Your task to perform on an android device: Go to Google Image 0: 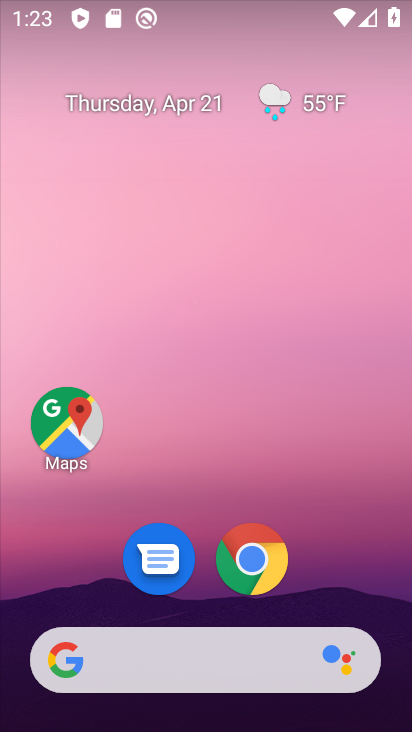
Step 0: drag from (227, 636) to (291, 178)
Your task to perform on an android device: Go to Google Image 1: 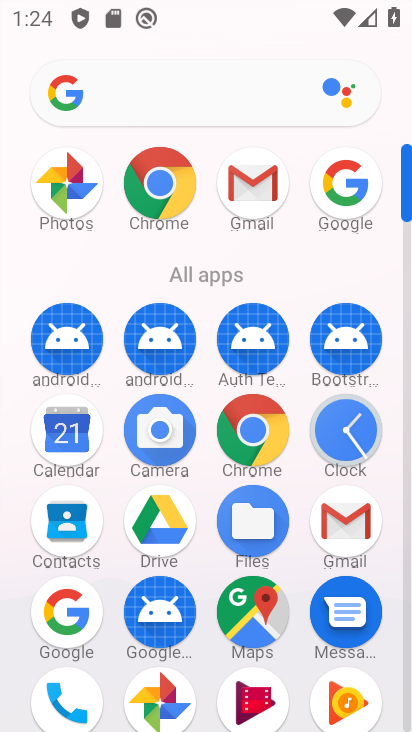
Step 1: click (54, 617)
Your task to perform on an android device: Go to Google Image 2: 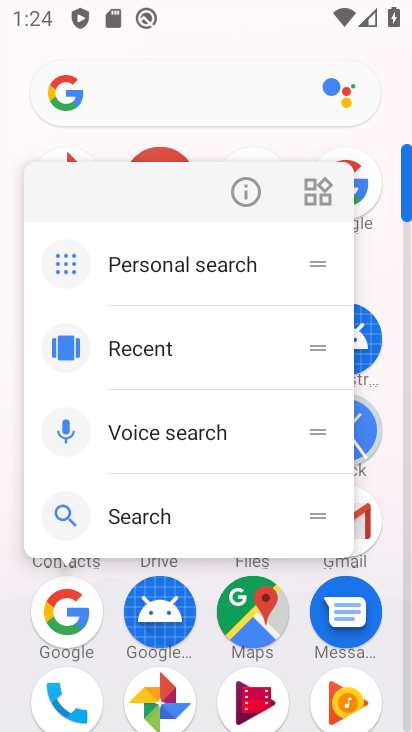
Step 2: click (54, 617)
Your task to perform on an android device: Go to Google Image 3: 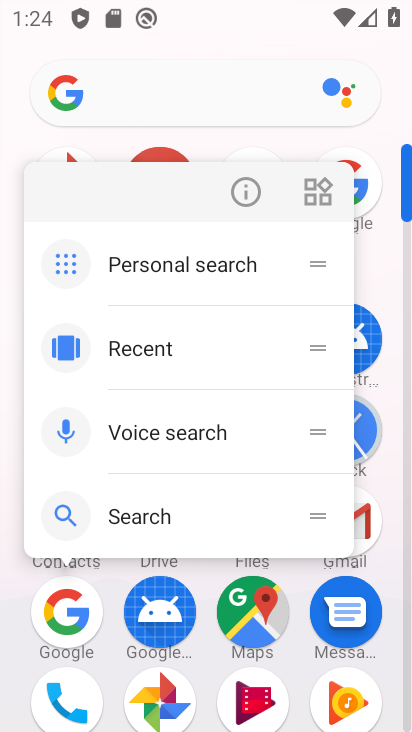
Step 3: click (54, 617)
Your task to perform on an android device: Go to Google Image 4: 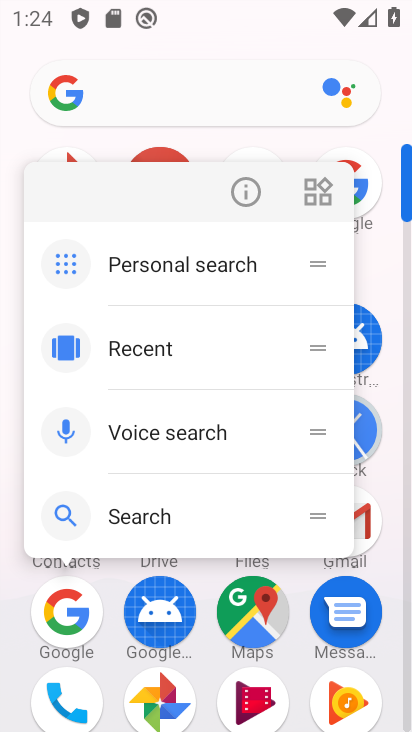
Step 4: click (74, 623)
Your task to perform on an android device: Go to Google Image 5: 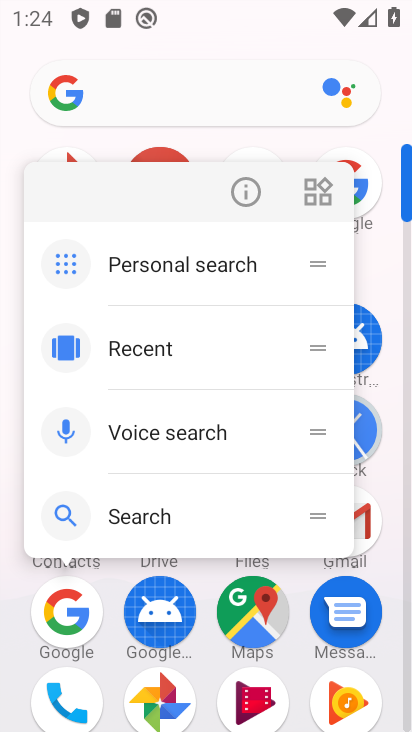
Step 5: click (74, 611)
Your task to perform on an android device: Go to Google Image 6: 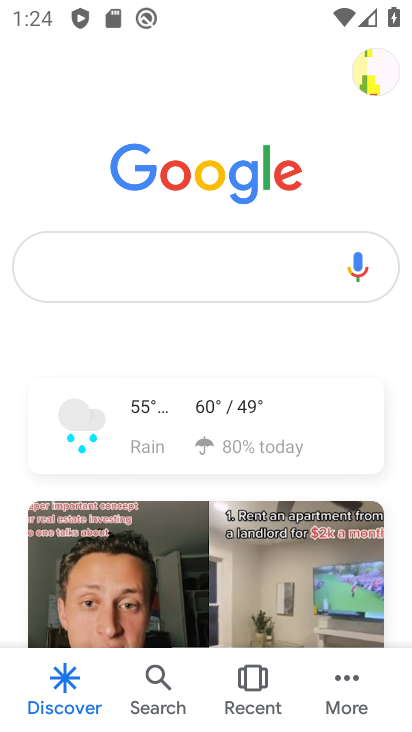
Step 6: click (388, 114)
Your task to perform on an android device: Go to Google Image 7: 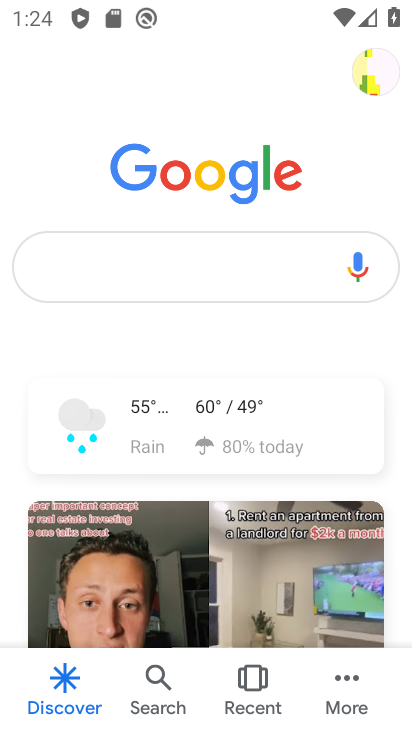
Step 7: task complete